Your task to perform on an android device: move a message to another label in the gmail app Image 0: 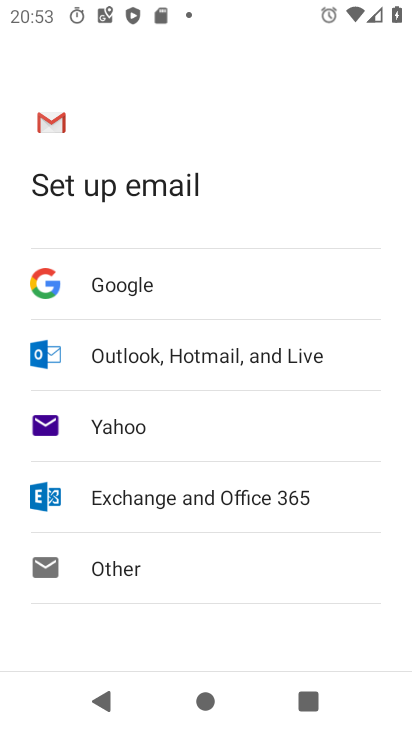
Step 0: press home button
Your task to perform on an android device: move a message to another label in the gmail app Image 1: 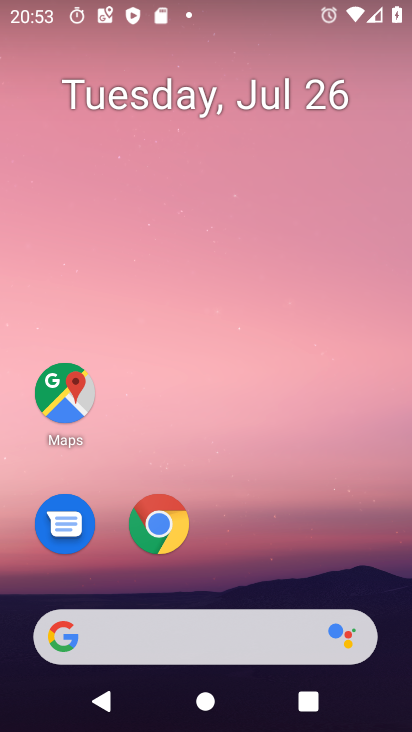
Step 1: drag from (269, 540) to (199, 99)
Your task to perform on an android device: move a message to another label in the gmail app Image 2: 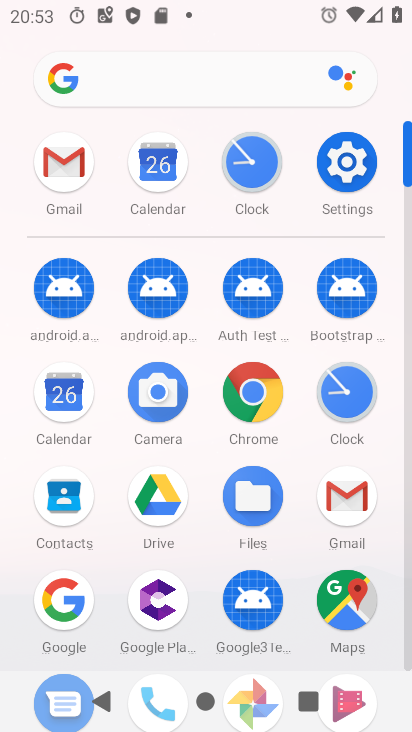
Step 2: click (52, 168)
Your task to perform on an android device: move a message to another label in the gmail app Image 3: 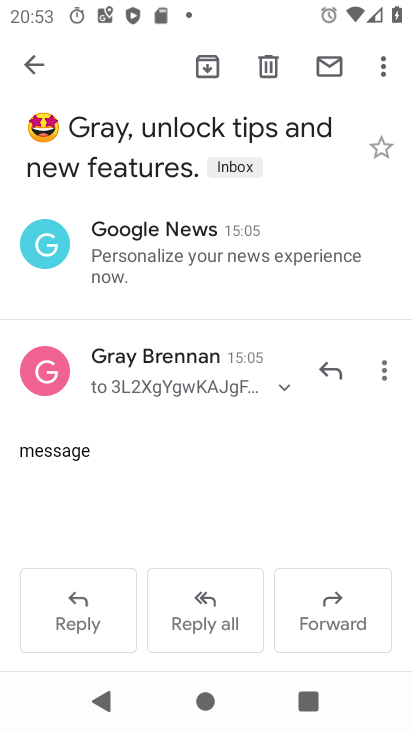
Step 3: click (221, 365)
Your task to perform on an android device: move a message to another label in the gmail app Image 4: 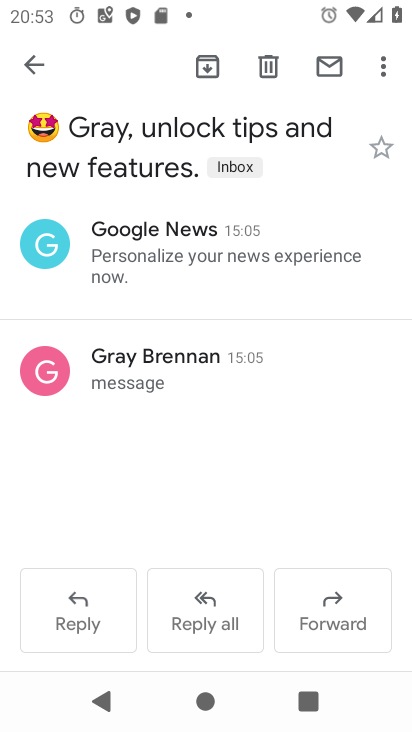
Step 4: click (218, 363)
Your task to perform on an android device: move a message to another label in the gmail app Image 5: 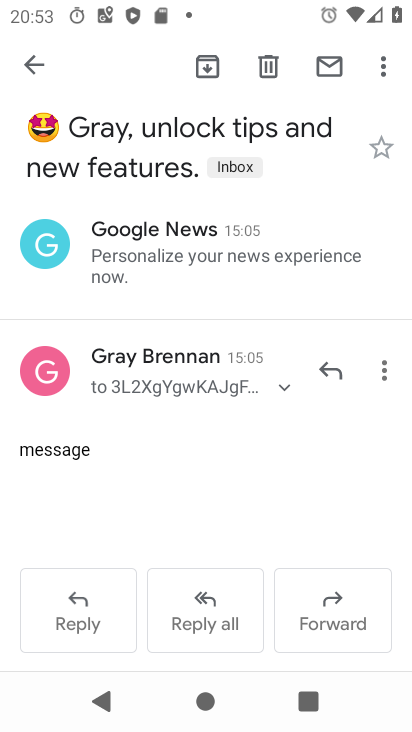
Step 5: click (223, 247)
Your task to perform on an android device: move a message to another label in the gmail app Image 6: 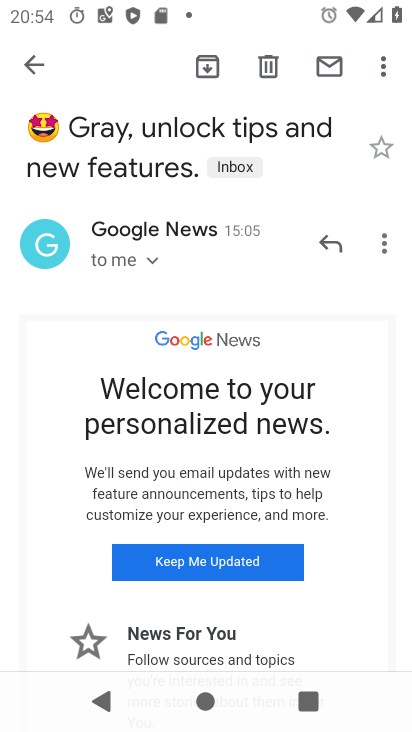
Step 6: click (385, 239)
Your task to perform on an android device: move a message to another label in the gmail app Image 7: 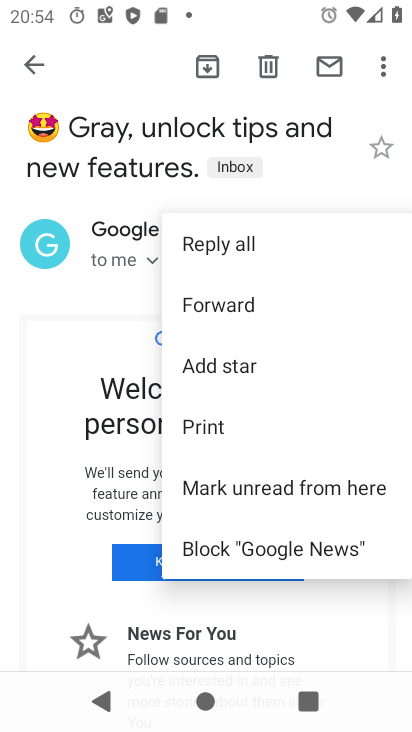
Step 7: click (77, 316)
Your task to perform on an android device: move a message to another label in the gmail app Image 8: 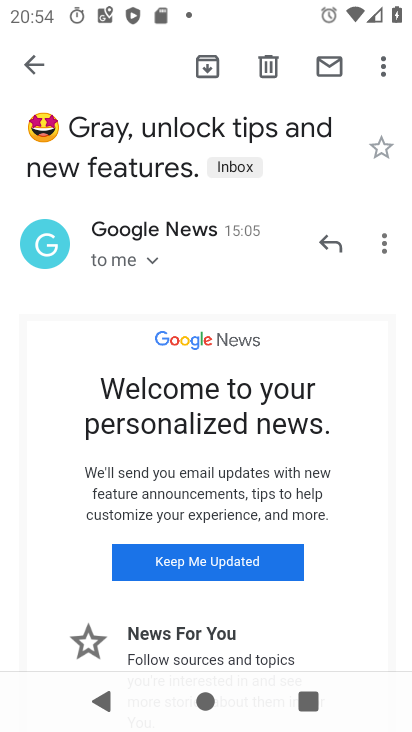
Step 8: click (383, 66)
Your task to perform on an android device: move a message to another label in the gmail app Image 9: 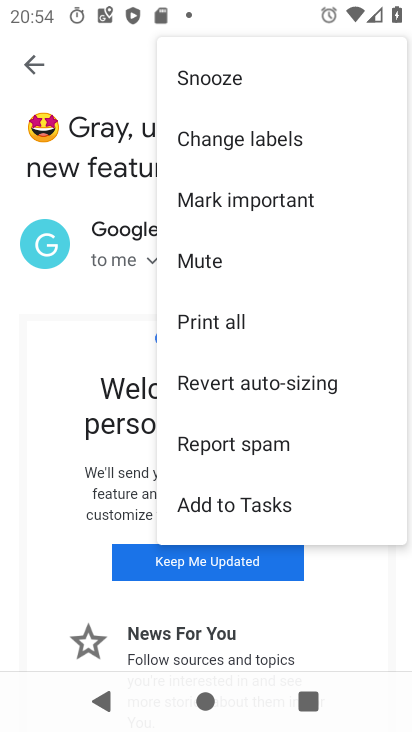
Step 9: click (288, 138)
Your task to perform on an android device: move a message to another label in the gmail app Image 10: 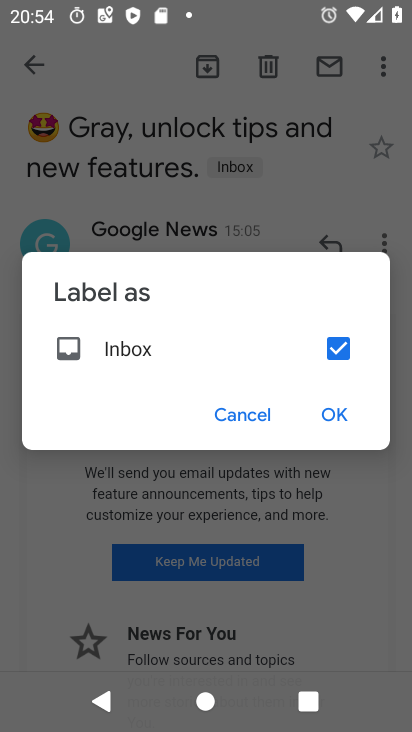
Step 10: click (339, 408)
Your task to perform on an android device: move a message to another label in the gmail app Image 11: 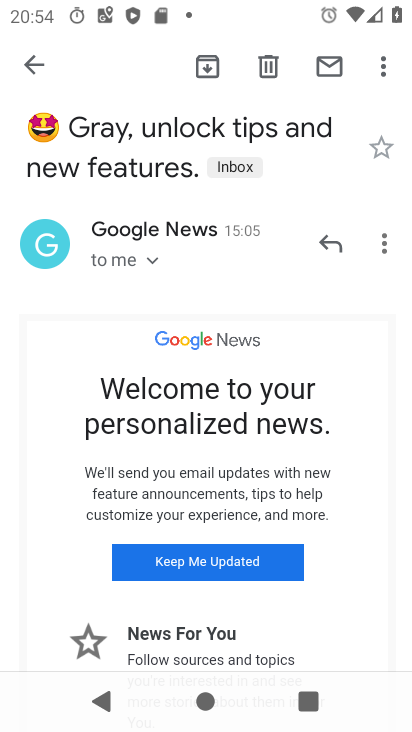
Step 11: click (378, 69)
Your task to perform on an android device: move a message to another label in the gmail app Image 12: 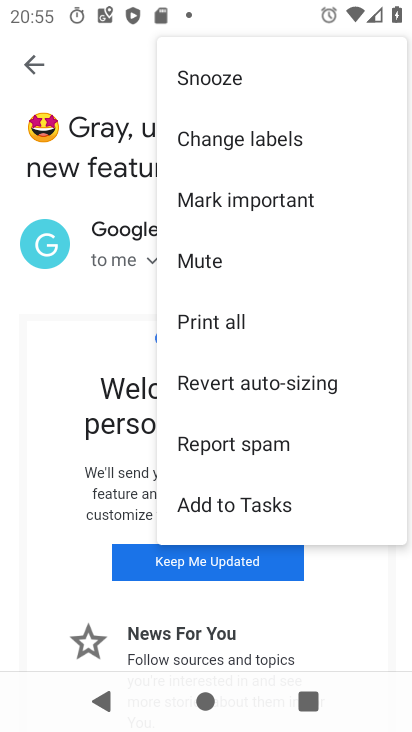
Step 12: click (304, 200)
Your task to perform on an android device: move a message to another label in the gmail app Image 13: 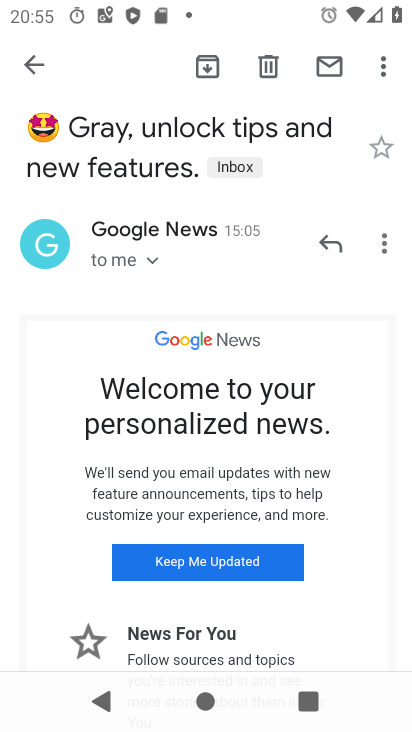
Step 13: task complete